Your task to perform on an android device: Open the web browser Image 0: 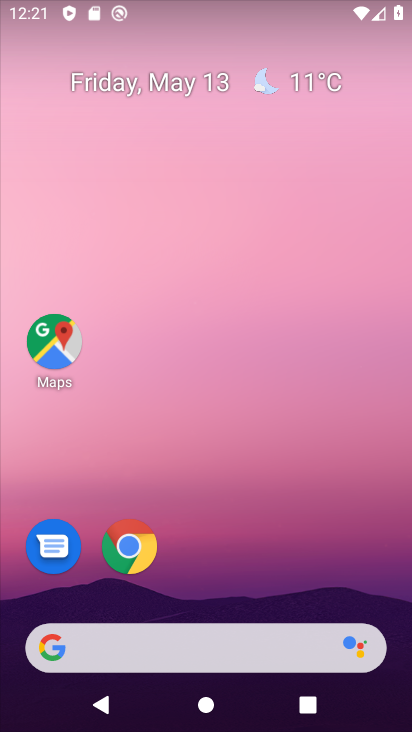
Step 0: drag from (262, 565) to (331, 57)
Your task to perform on an android device: Open the web browser Image 1: 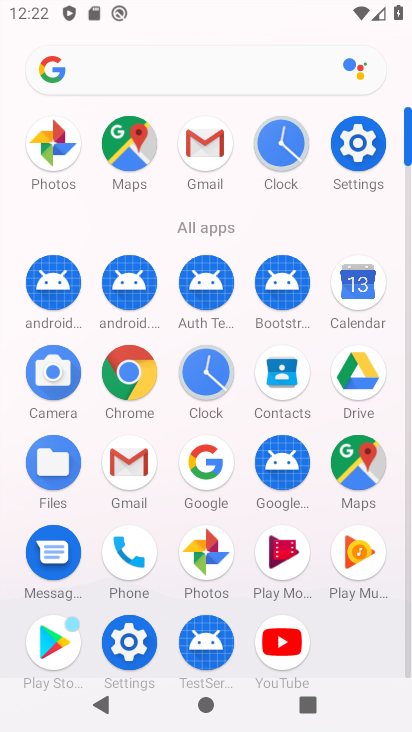
Step 1: click (139, 378)
Your task to perform on an android device: Open the web browser Image 2: 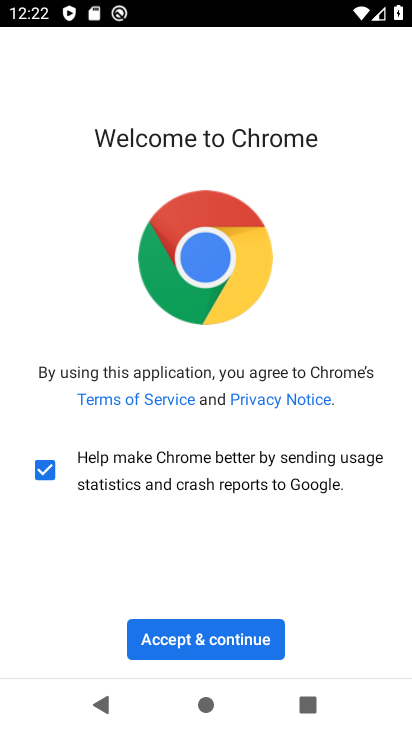
Step 2: click (221, 629)
Your task to perform on an android device: Open the web browser Image 3: 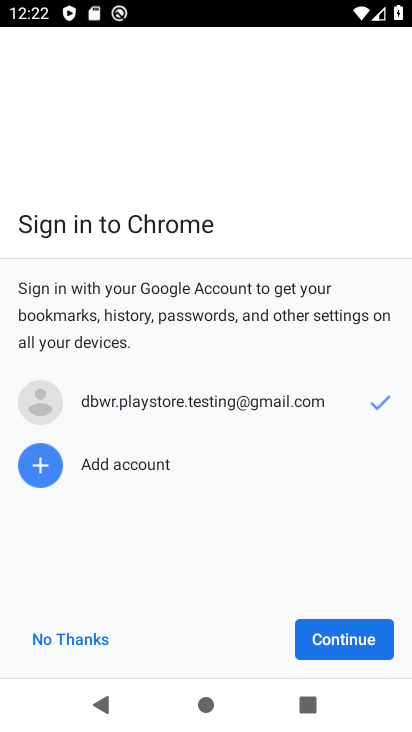
Step 3: click (342, 645)
Your task to perform on an android device: Open the web browser Image 4: 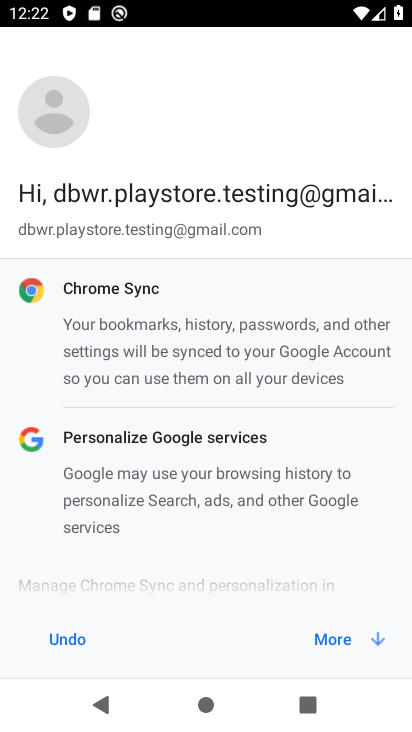
Step 4: click (352, 648)
Your task to perform on an android device: Open the web browser Image 5: 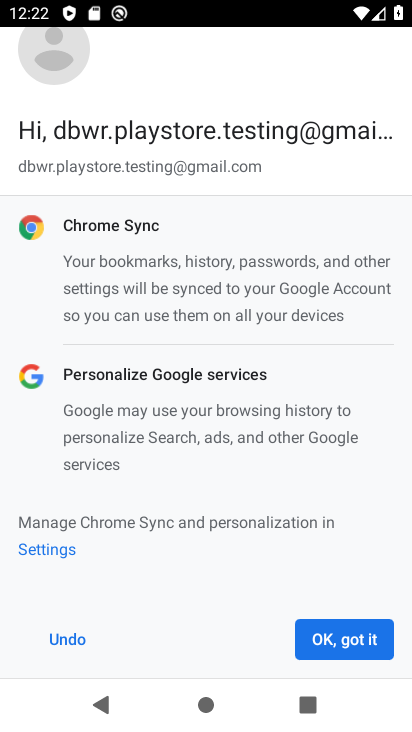
Step 5: click (368, 647)
Your task to perform on an android device: Open the web browser Image 6: 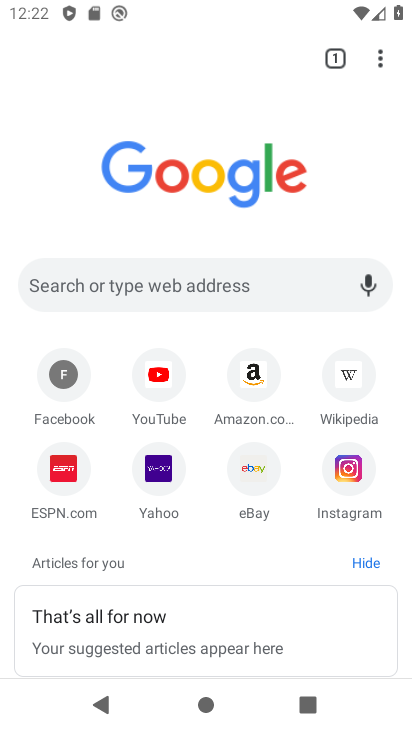
Step 6: task complete